Your task to perform on an android device: open chrome and create a bookmark for the current page Image 0: 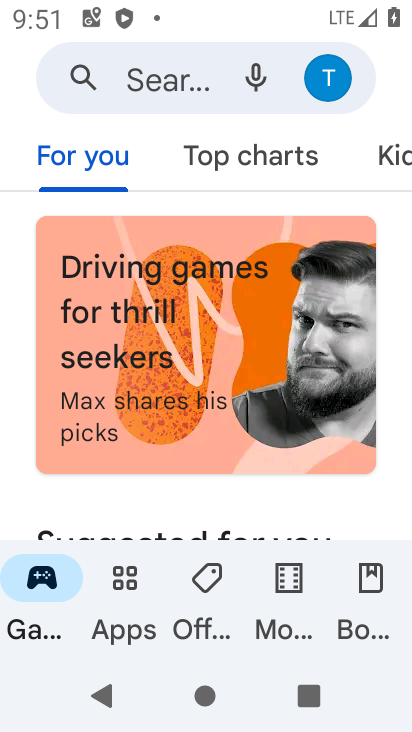
Step 0: press home button
Your task to perform on an android device: open chrome and create a bookmark for the current page Image 1: 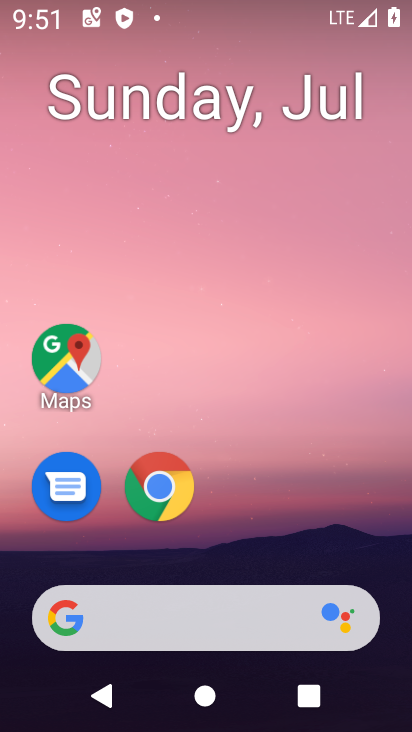
Step 1: drag from (342, 526) to (341, 153)
Your task to perform on an android device: open chrome and create a bookmark for the current page Image 2: 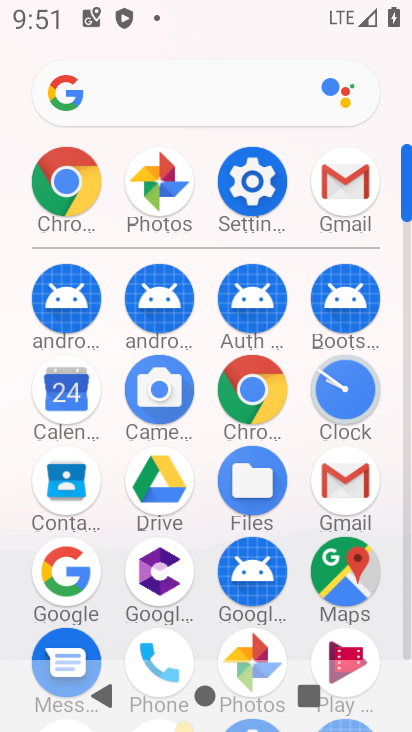
Step 2: click (257, 390)
Your task to perform on an android device: open chrome and create a bookmark for the current page Image 3: 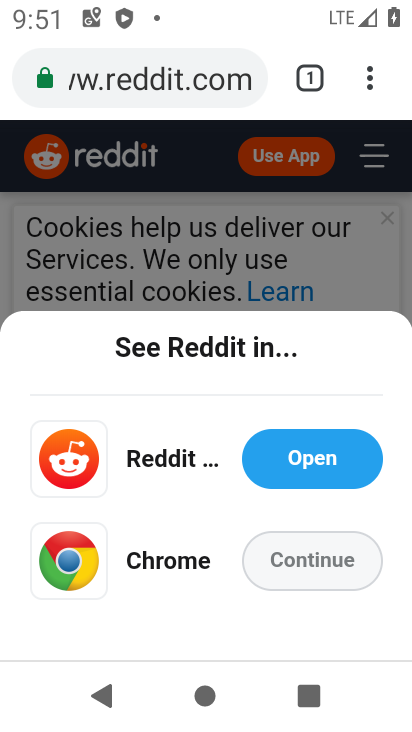
Step 3: click (370, 84)
Your task to perform on an android device: open chrome and create a bookmark for the current page Image 4: 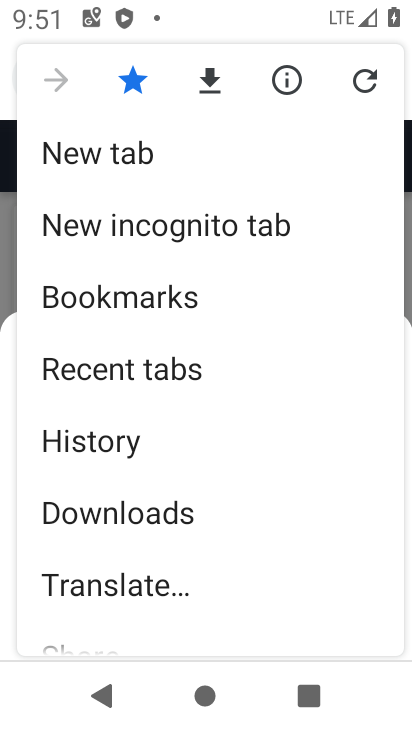
Step 4: task complete